Your task to perform on an android device: toggle translation in the chrome app Image 0: 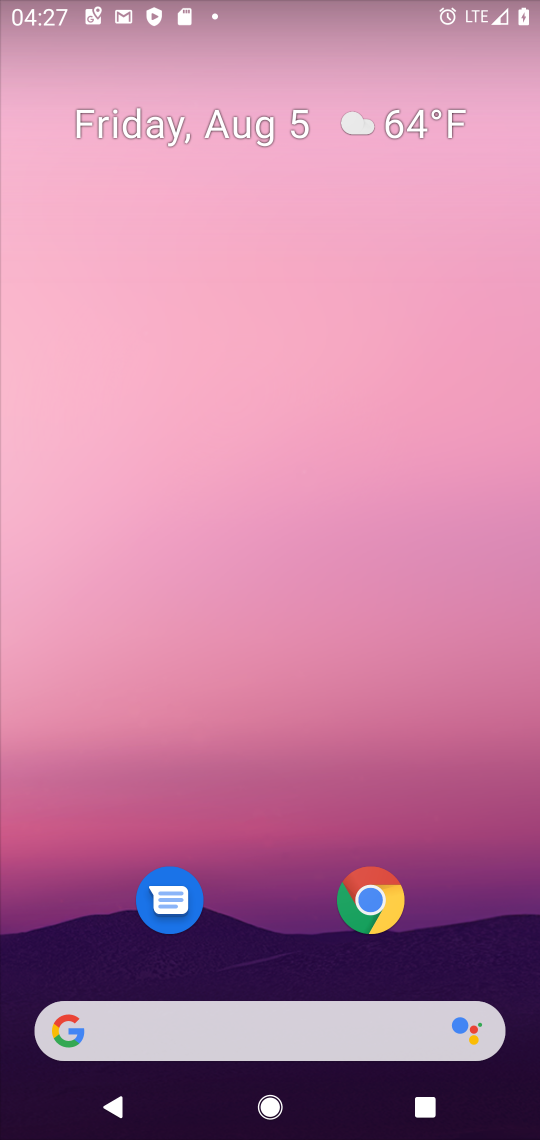
Step 0: click (393, 887)
Your task to perform on an android device: toggle translation in the chrome app Image 1: 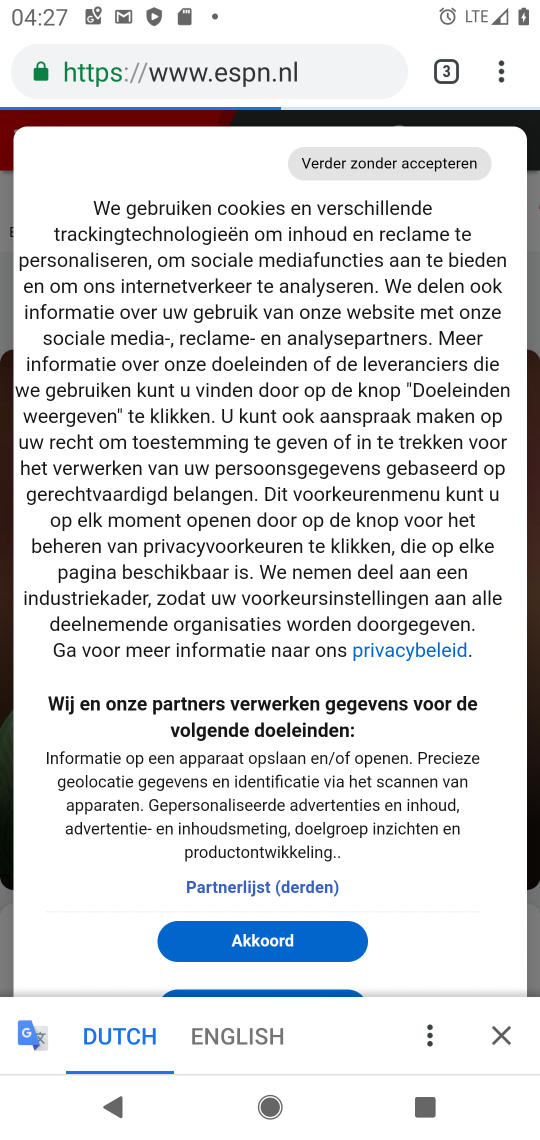
Step 1: drag from (495, 65) to (301, 795)
Your task to perform on an android device: toggle translation in the chrome app Image 2: 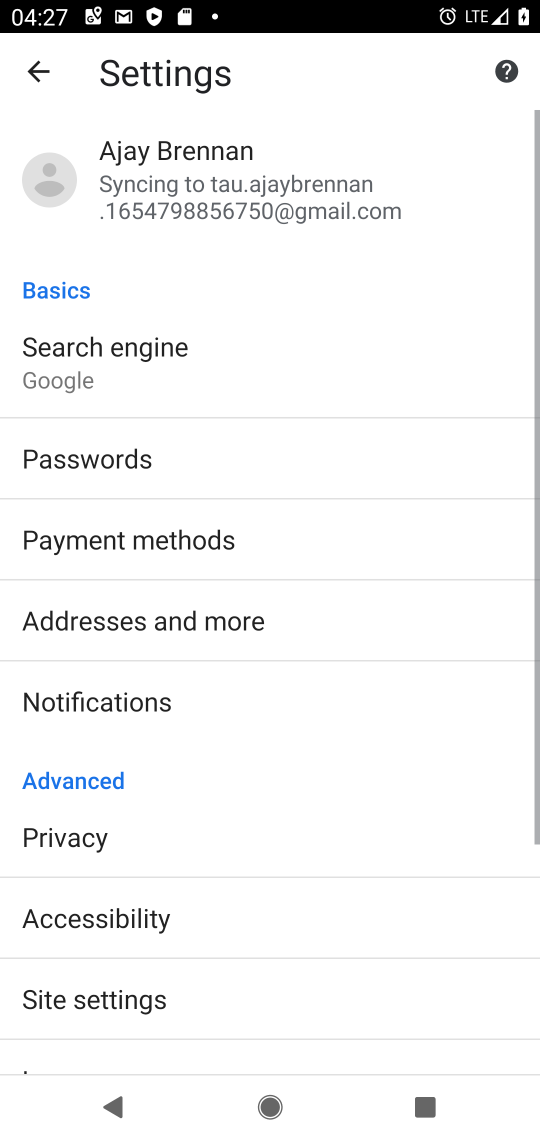
Step 2: drag from (190, 951) to (313, 59)
Your task to perform on an android device: toggle translation in the chrome app Image 3: 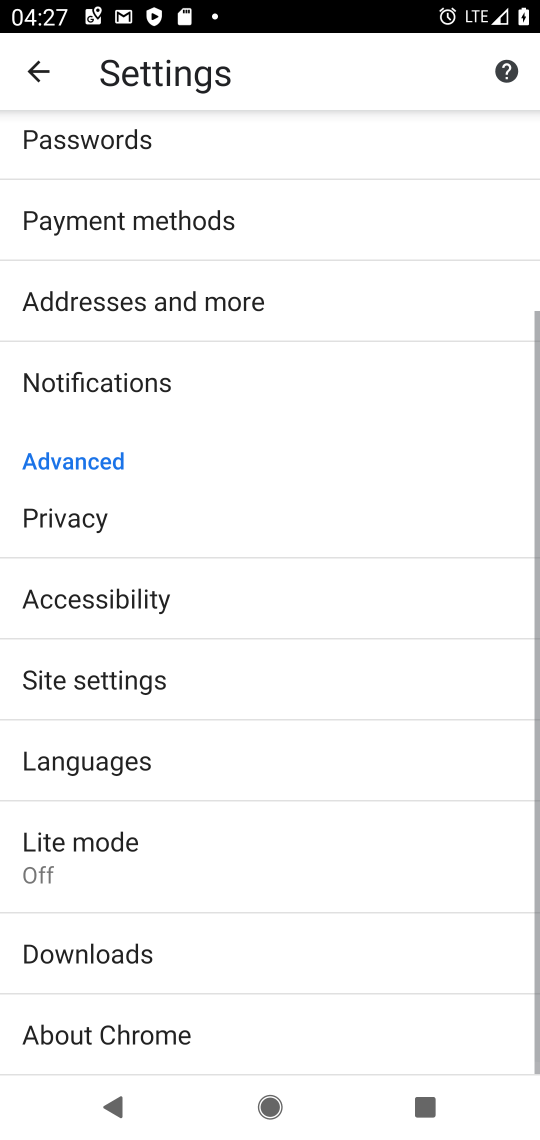
Step 3: click (76, 751)
Your task to perform on an android device: toggle translation in the chrome app Image 4: 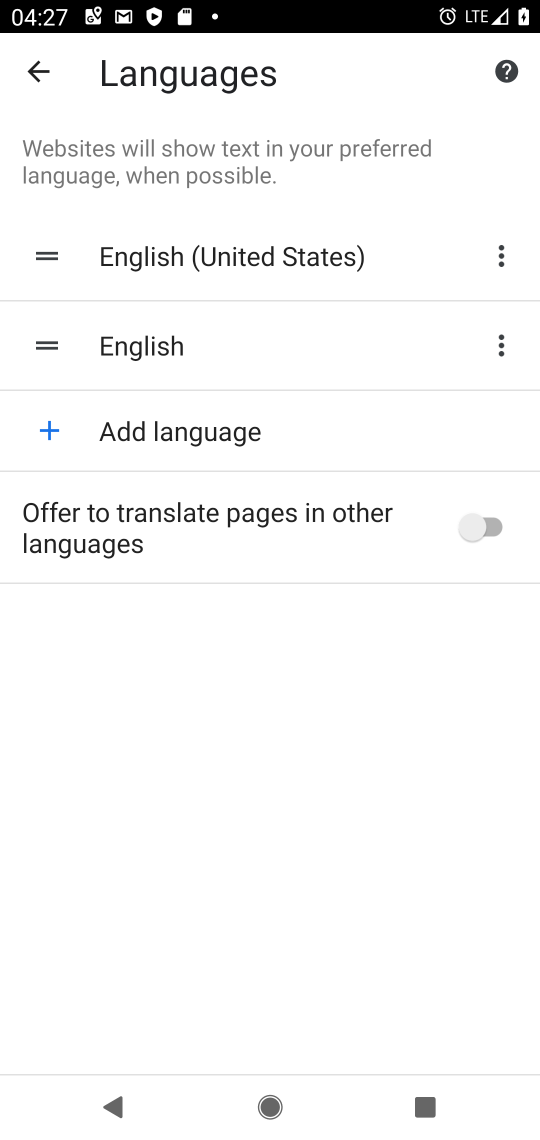
Step 4: click (491, 529)
Your task to perform on an android device: toggle translation in the chrome app Image 5: 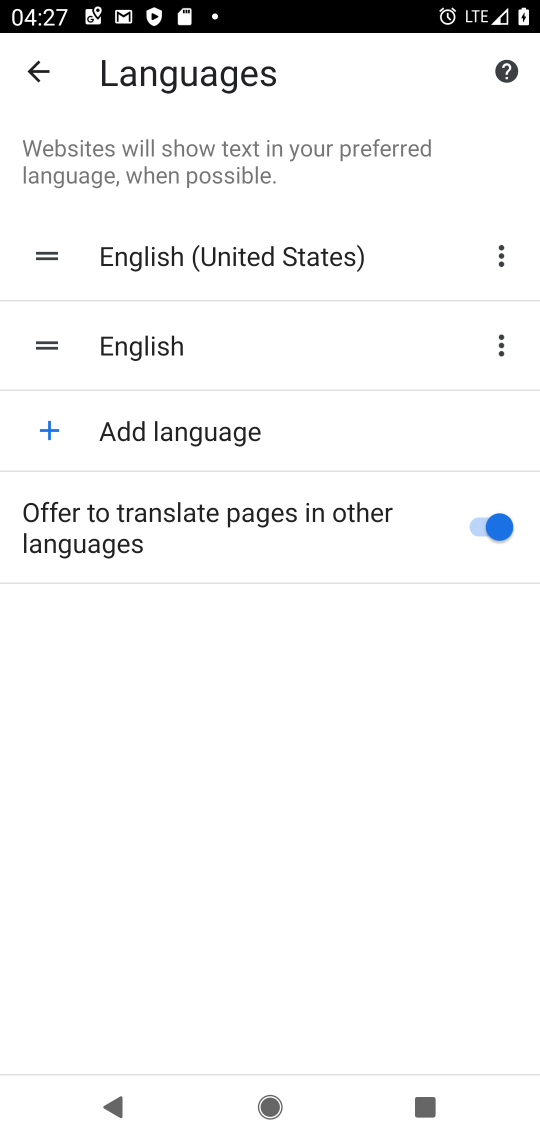
Step 5: task complete